Your task to perform on an android device: Open sound settings Image 0: 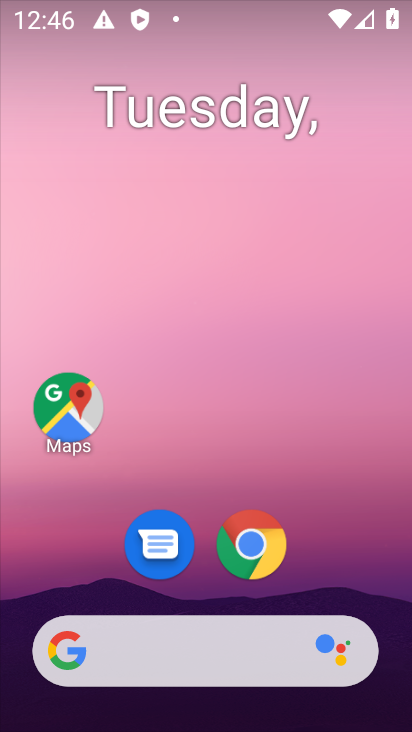
Step 0: drag from (347, 535) to (306, 66)
Your task to perform on an android device: Open sound settings Image 1: 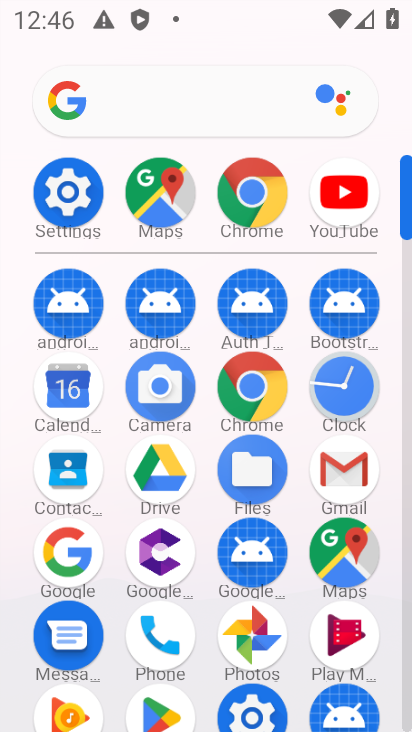
Step 1: click (259, 710)
Your task to perform on an android device: Open sound settings Image 2: 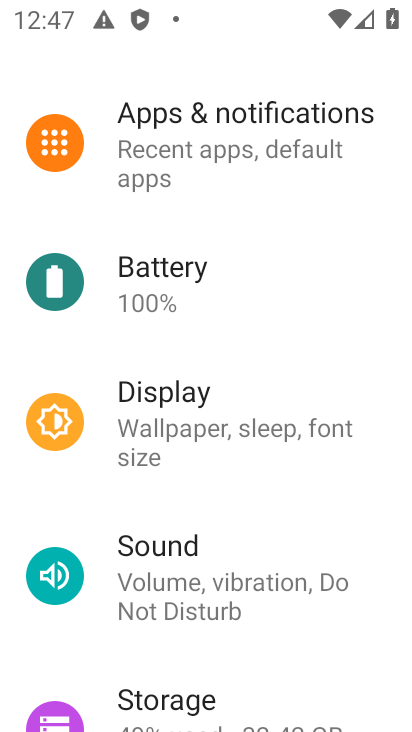
Step 2: click (215, 597)
Your task to perform on an android device: Open sound settings Image 3: 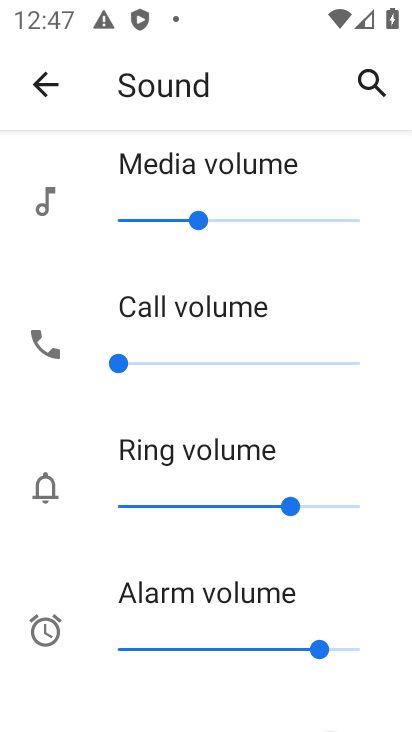
Step 3: task complete